Your task to perform on an android device: Go to eBay Image 0: 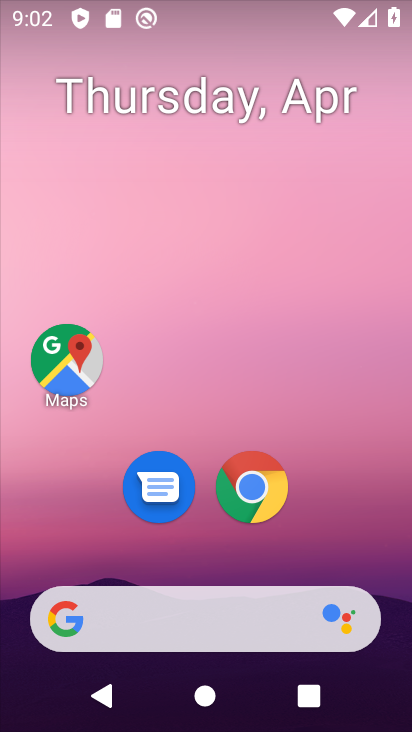
Step 0: click (346, 72)
Your task to perform on an android device: Go to eBay Image 1: 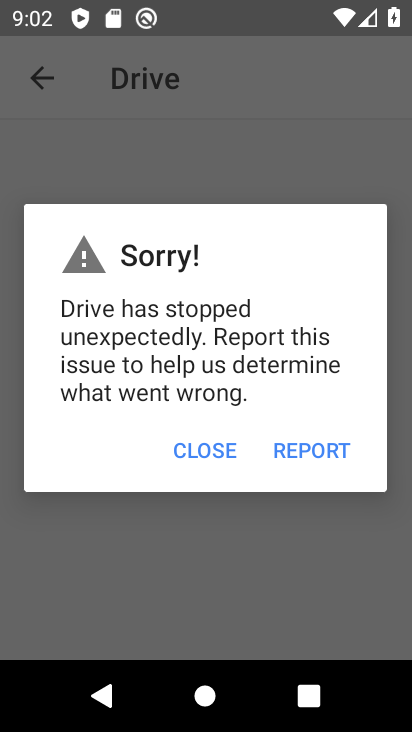
Step 1: press home button
Your task to perform on an android device: Go to eBay Image 2: 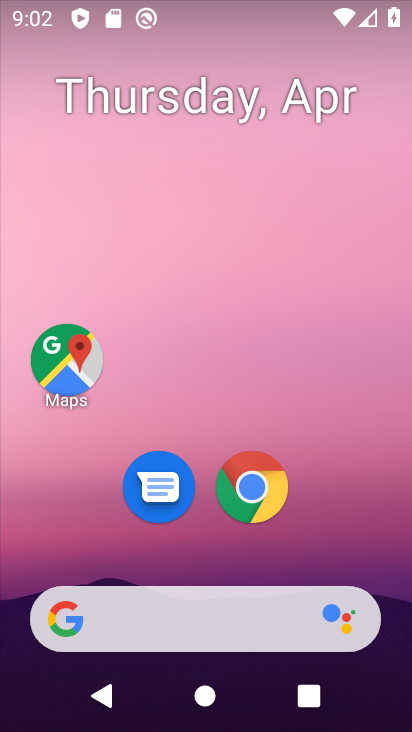
Step 2: drag from (352, 530) to (348, 105)
Your task to perform on an android device: Go to eBay Image 3: 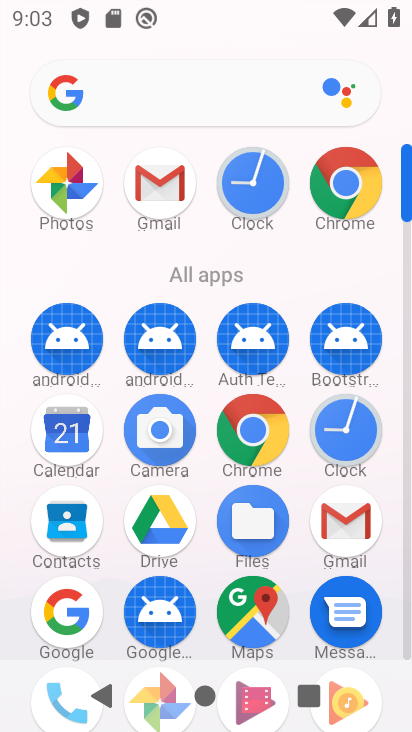
Step 3: click (234, 439)
Your task to perform on an android device: Go to eBay Image 4: 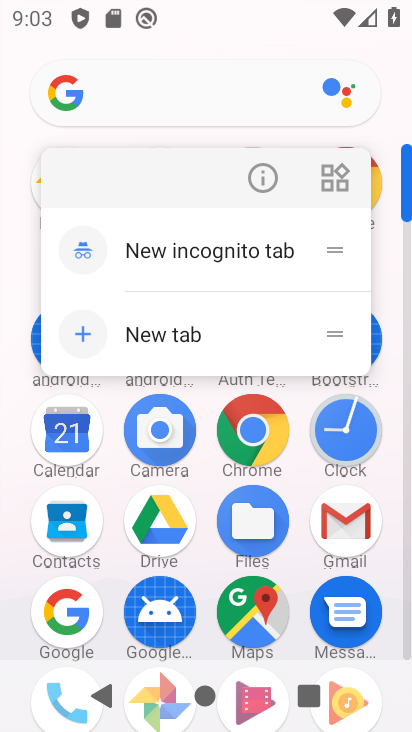
Step 4: click (253, 435)
Your task to perform on an android device: Go to eBay Image 5: 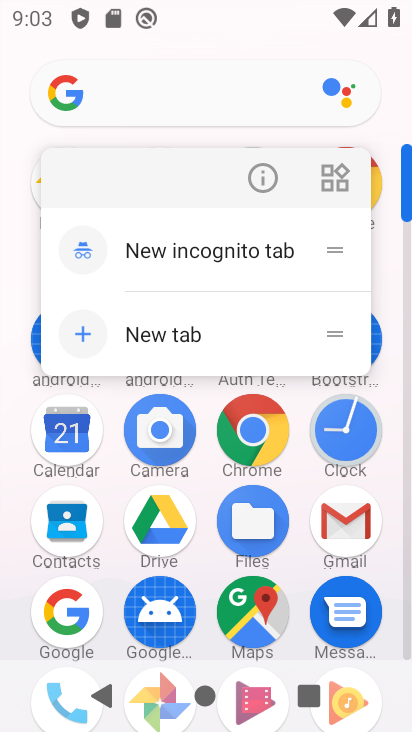
Step 5: click (270, 443)
Your task to perform on an android device: Go to eBay Image 6: 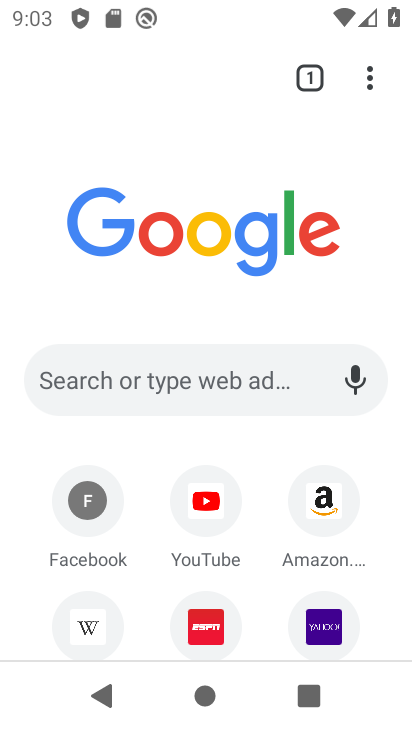
Step 6: drag from (383, 506) to (400, 284)
Your task to perform on an android device: Go to eBay Image 7: 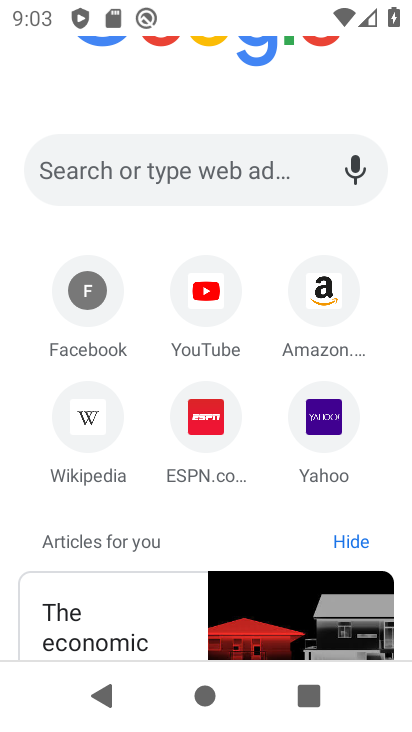
Step 7: click (166, 160)
Your task to perform on an android device: Go to eBay Image 8: 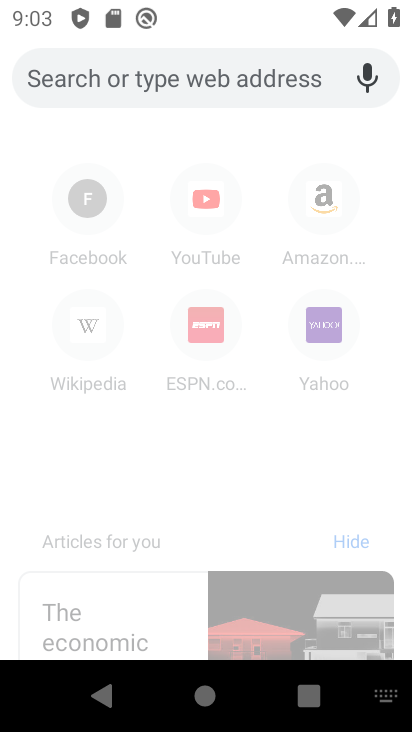
Step 8: type "ebay"
Your task to perform on an android device: Go to eBay Image 9: 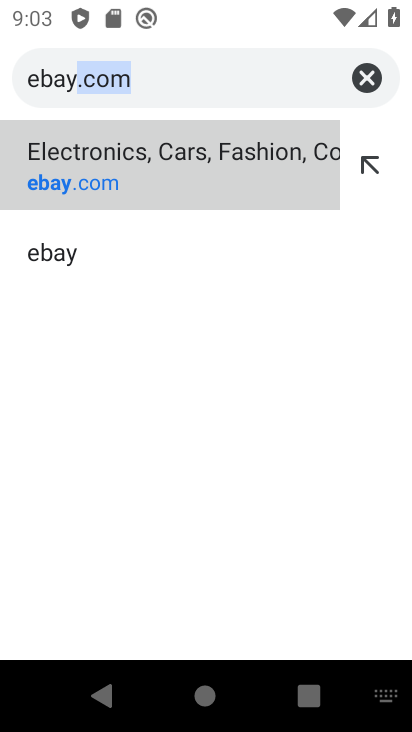
Step 9: click (110, 158)
Your task to perform on an android device: Go to eBay Image 10: 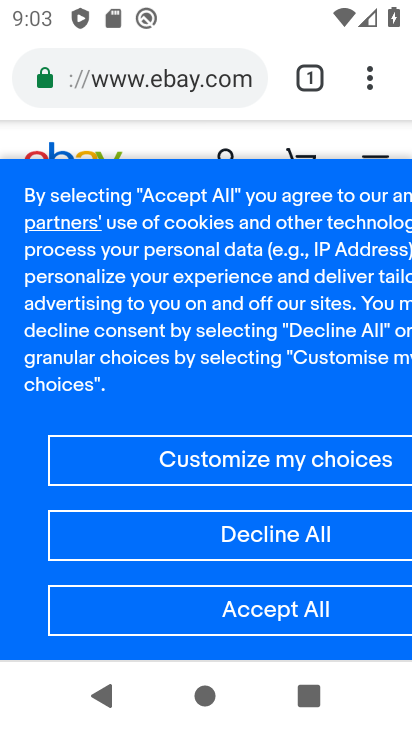
Step 10: task complete